Your task to perform on an android device: check battery use Image 0: 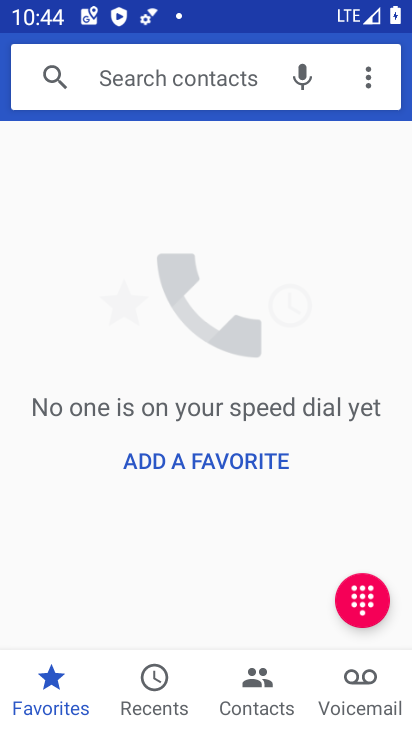
Step 0: press home button
Your task to perform on an android device: check battery use Image 1: 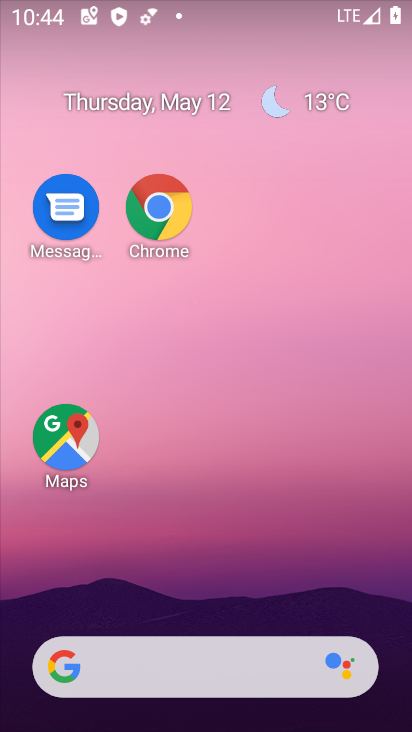
Step 1: drag from (241, 618) to (198, 37)
Your task to perform on an android device: check battery use Image 2: 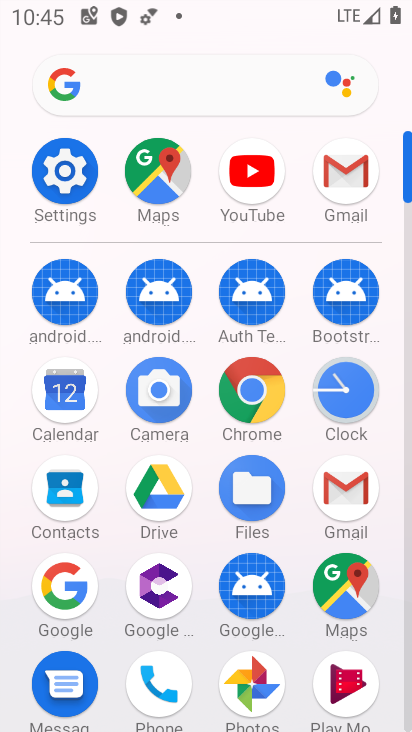
Step 2: click (48, 199)
Your task to perform on an android device: check battery use Image 3: 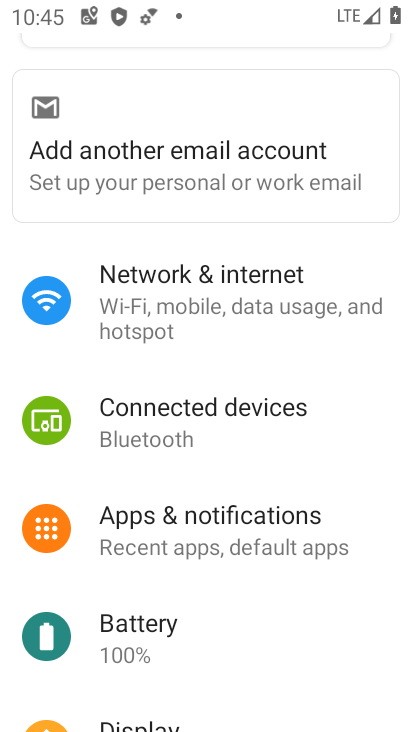
Step 3: click (111, 613)
Your task to perform on an android device: check battery use Image 4: 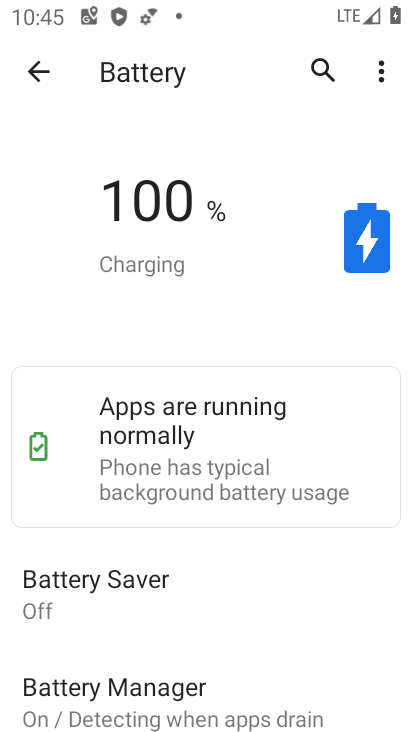
Step 4: click (383, 75)
Your task to perform on an android device: check battery use Image 5: 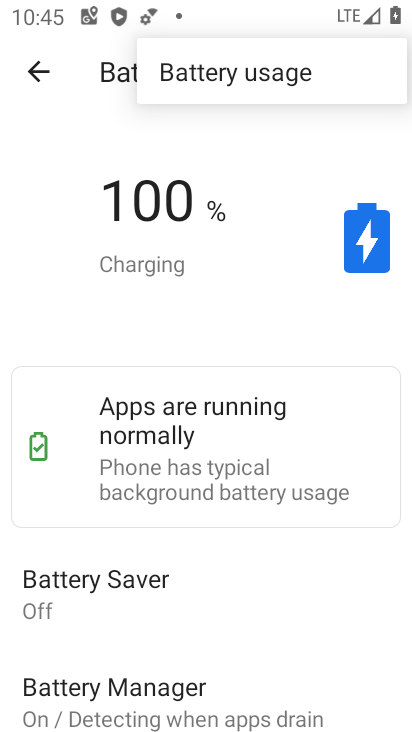
Step 5: click (313, 91)
Your task to perform on an android device: check battery use Image 6: 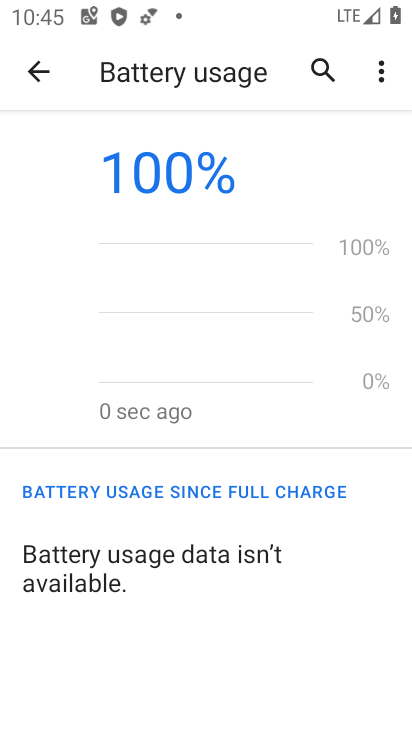
Step 6: task complete